Your task to perform on an android device: Add "logitech g502" to the cart on newegg.com Image 0: 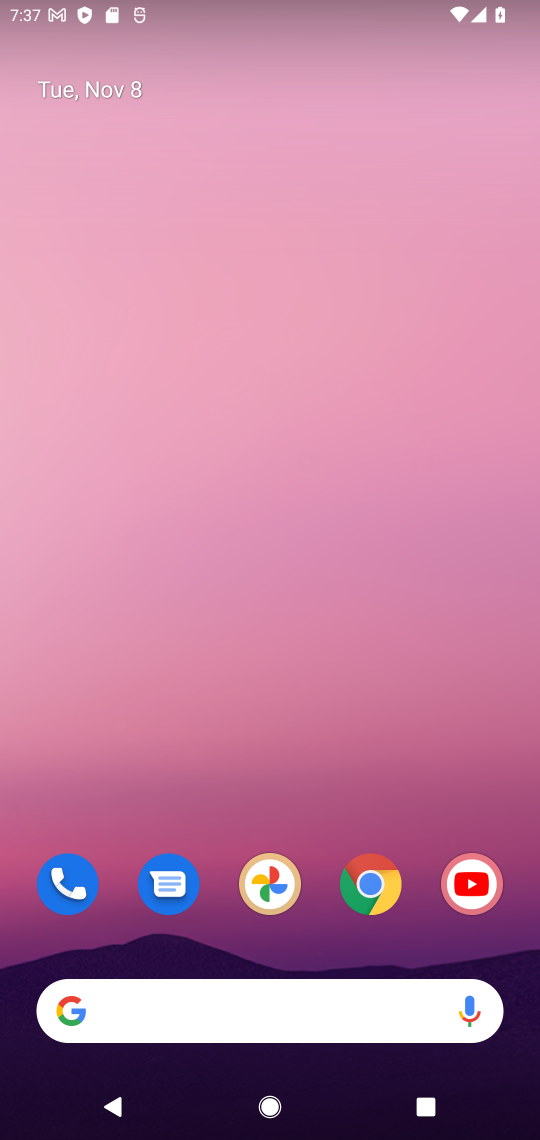
Step 0: click (320, 241)
Your task to perform on an android device: Add "logitech g502" to the cart on newegg.com Image 1: 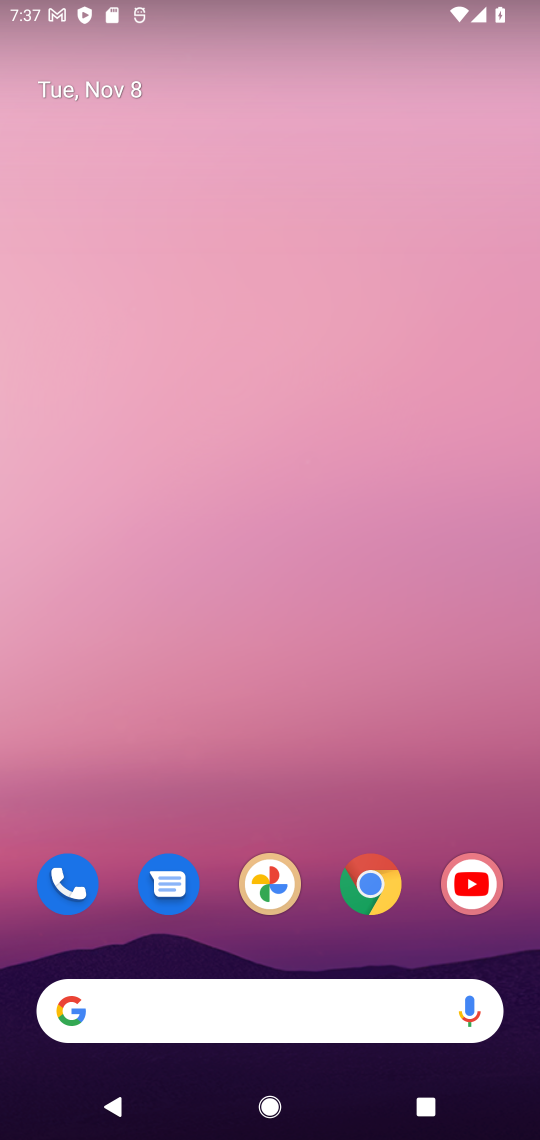
Step 1: drag from (371, 1020) to (387, 194)
Your task to perform on an android device: Add "logitech g502" to the cart on newegg.com Image 2: 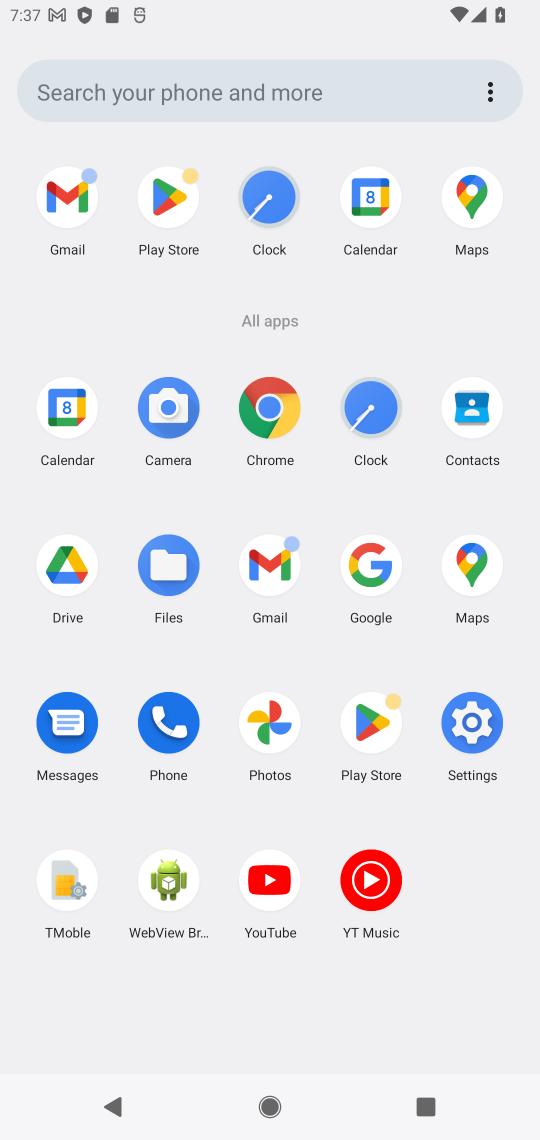
Step 2: click (372, 608)
Your task to perform on an android device: Add "logitech g502" to the cart on newegg.com Image 3: 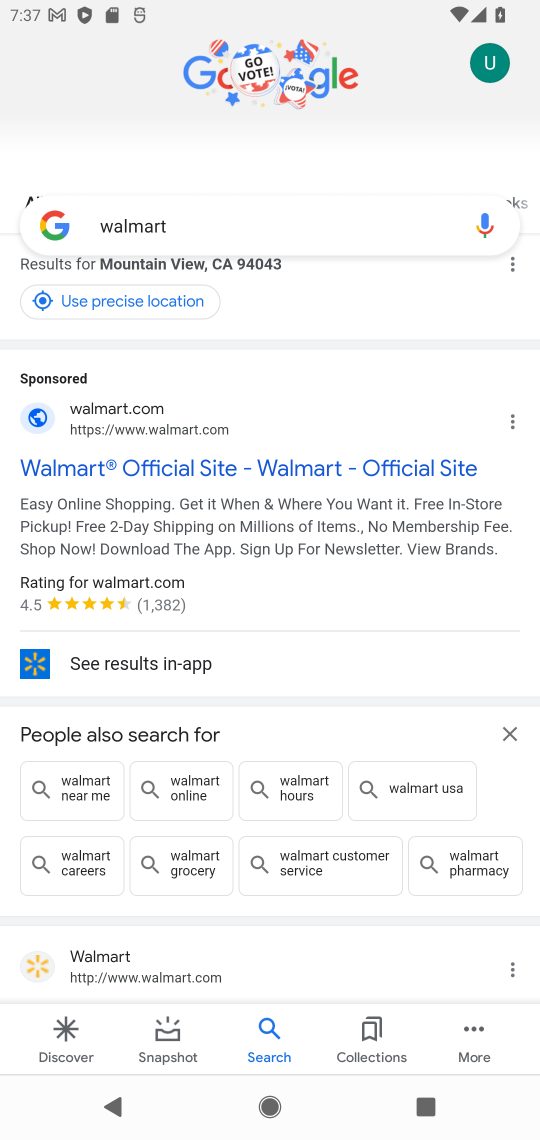
Step 3: click (356, 237)
Your task to perform on an android device: Add "logitech g502" to the cart on newegg.com Image 4: 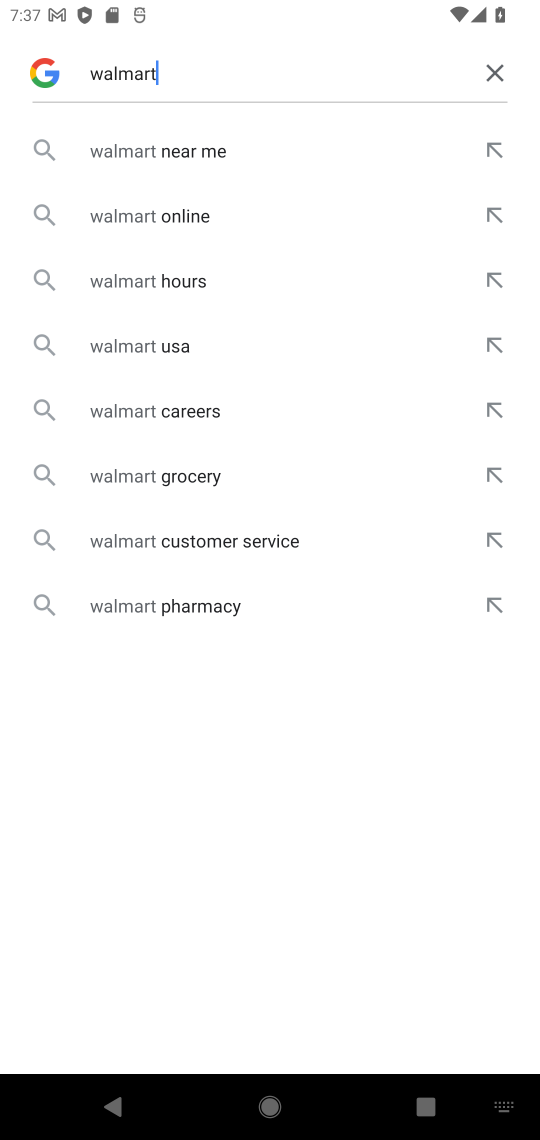
Step 4: click (498, 78)
Your task to perform on an android device: Add "logitech g502" to the cart on newegg.com Image 5: 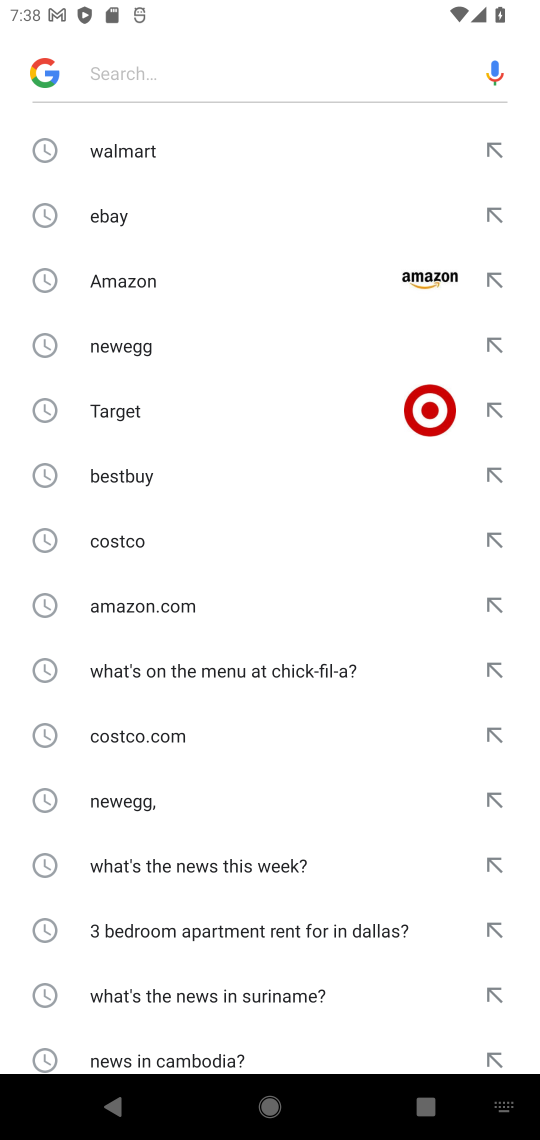
Step 5: type "newegg.com"
Your task to perform on an android device: Add "logitech g502" to the cart on newegg.com Image 6: 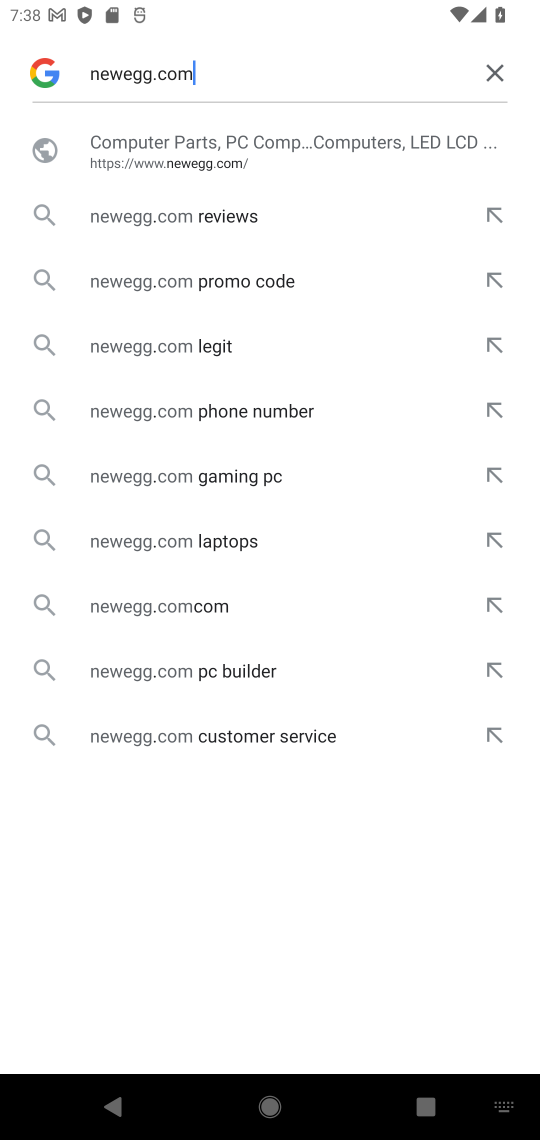
Step 6: click (197, 145)
Your task to perform on an android device: Add "logitech g502" to the cart on newegg.com Image 7: 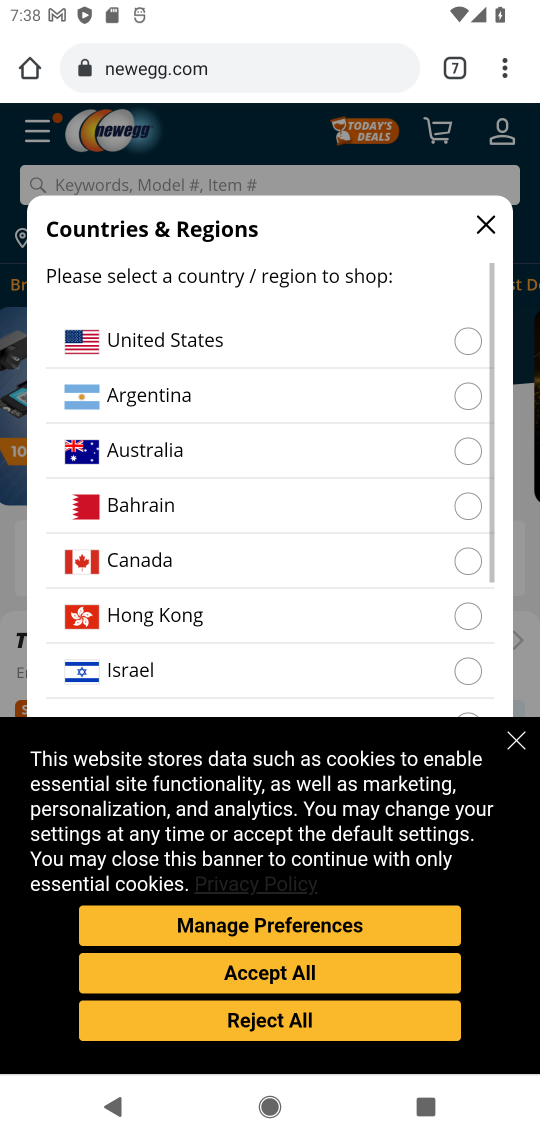
Step 7: click (474, 225)
Your task to perform on an android device: Add "logitech g502" to the cart on newegg.com Image 8: 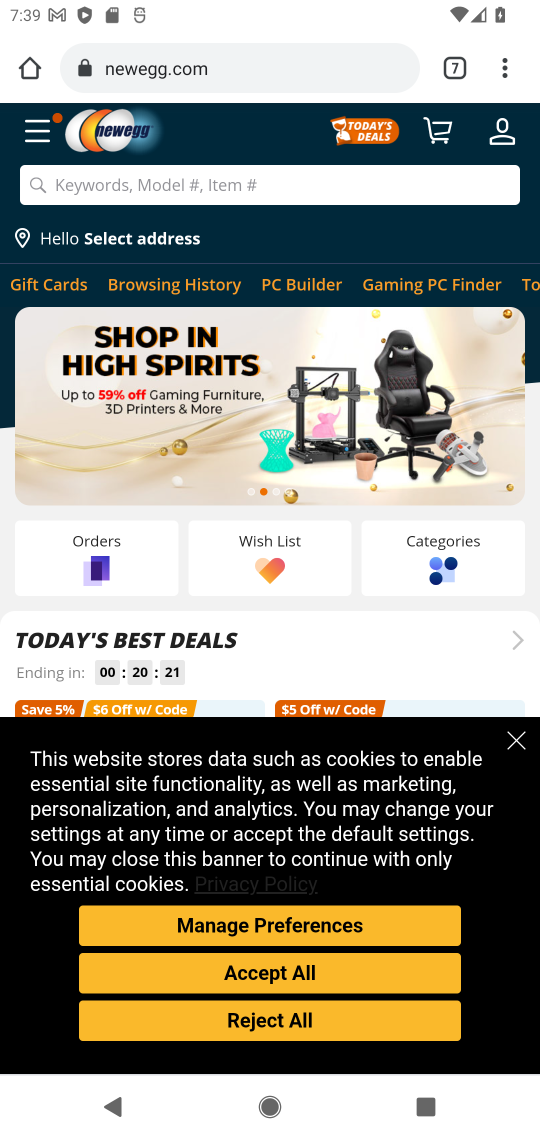
Step 8: click (175, 182)
Your task to perform on an android device: Add "logitech g502" to the cart on newegg.com Image 9: 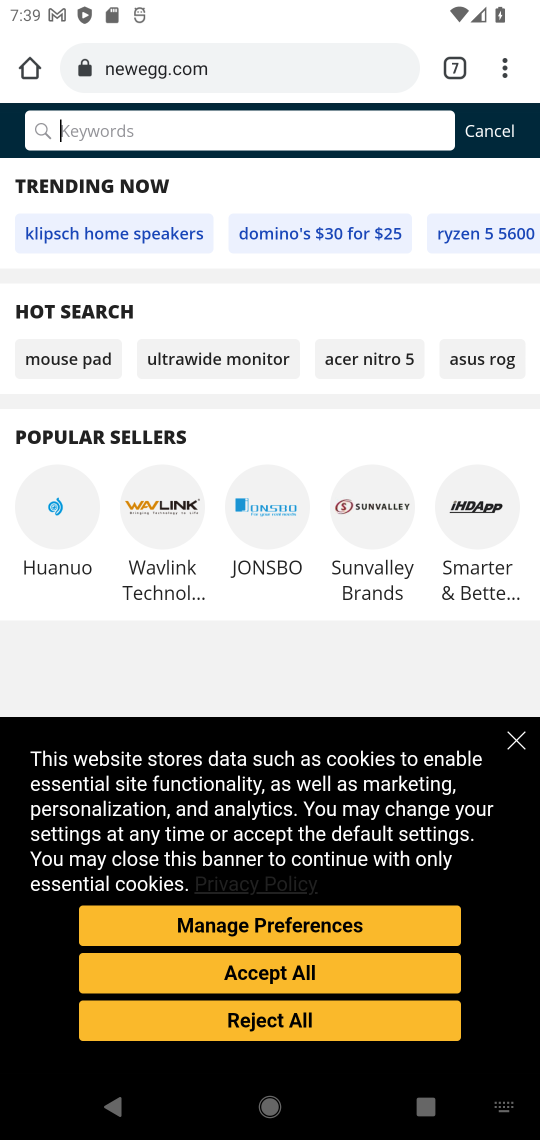
Step 9: type "logitech g502"
Your task to perform on an android device: Add "logitech g502" to the cart on newegg.com Image 10: 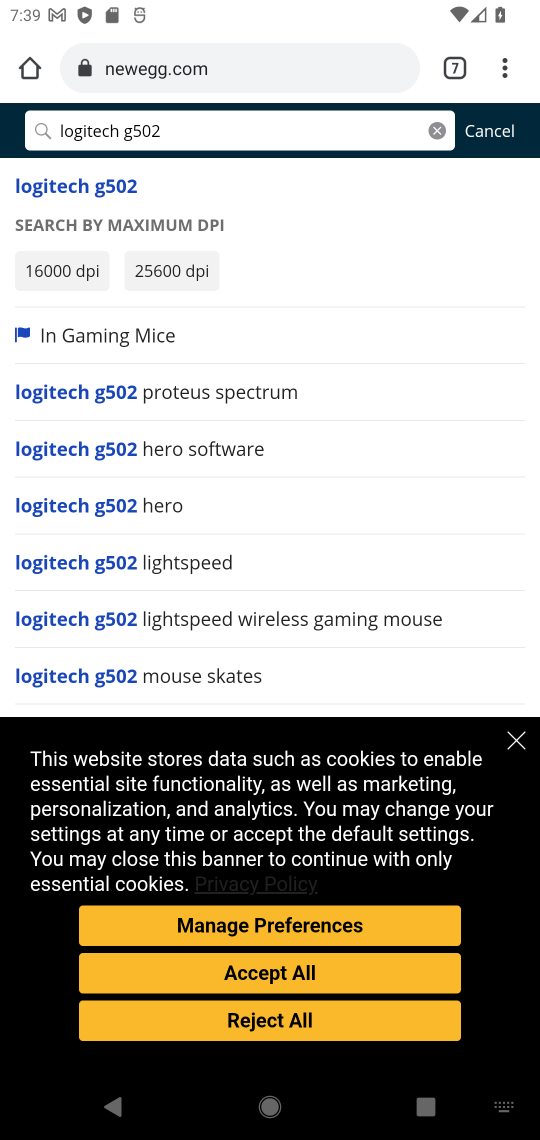
Step 10: click (156, 187)
Your task to perform on an android device: Add "logitech g502" to the cart on newegg.com Image 11: 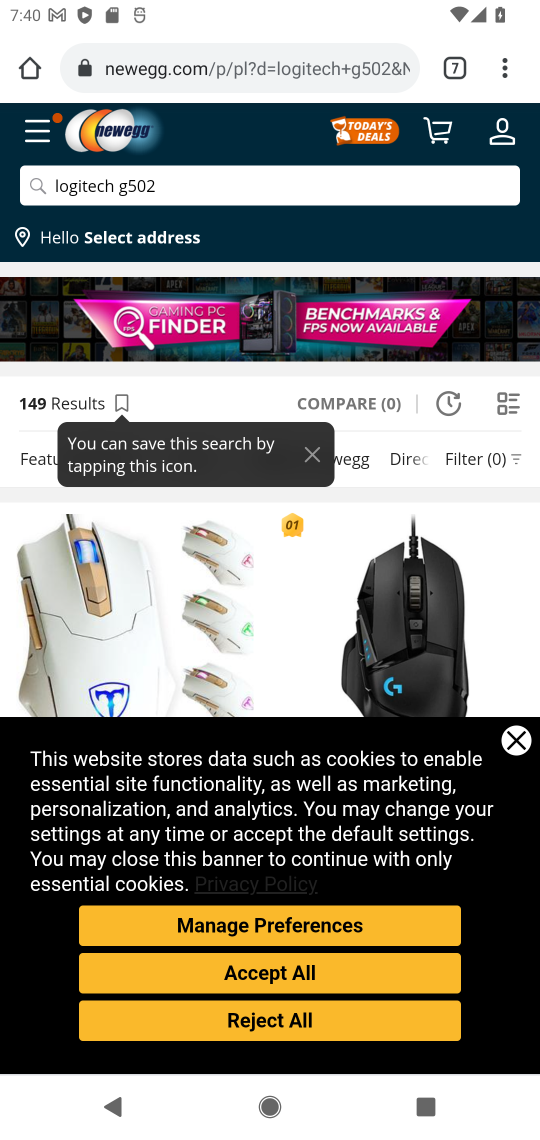
Step 11: click (519, 743)
Your task to perform on an android device: Add "logitech g502" to the cart on newegg.com Image 12: 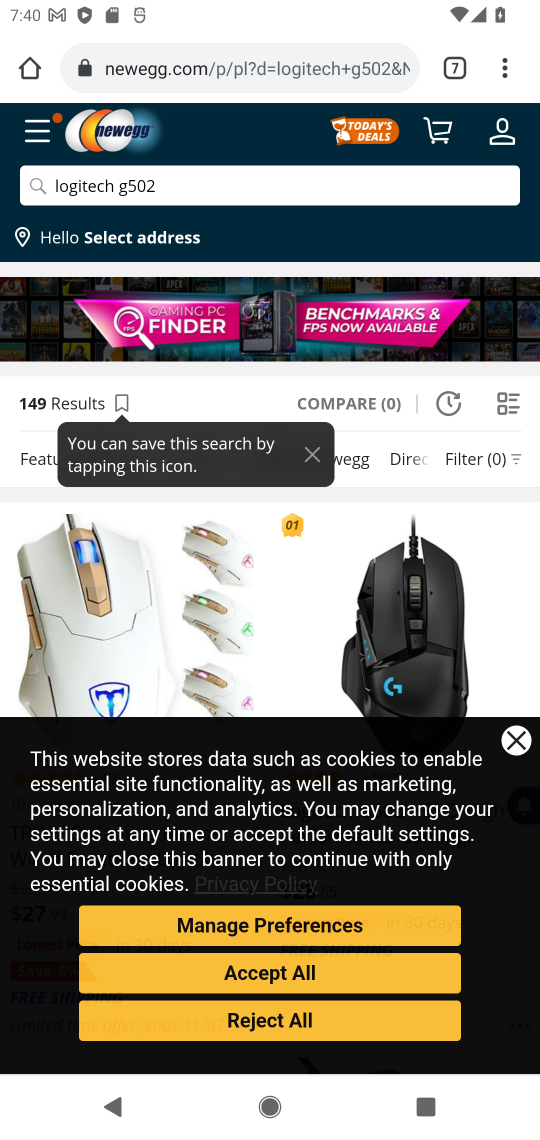
Step 12: click (519, 743)
Your task to perform on an android device: Add "logitech g502" to the cart on newegg.com Image 13: 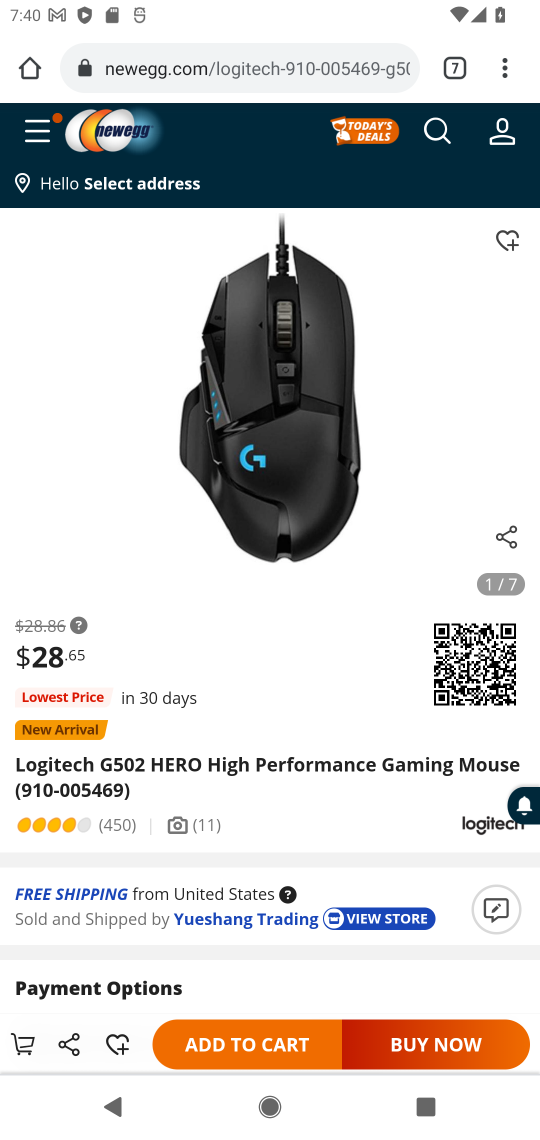
Step 13: click (202, 1060)
Your task to perform on an android device: Add "logitech g502" to the cart on newegg.com Image 14: 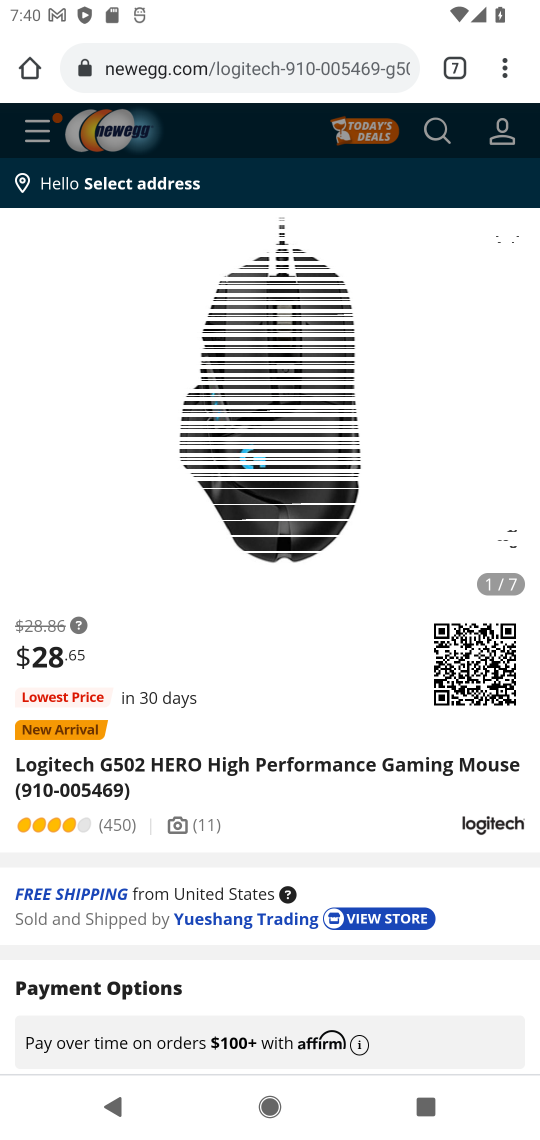
Step 14: task complete